Your task to perform on an android device: star an email in the gmail app Image 0: 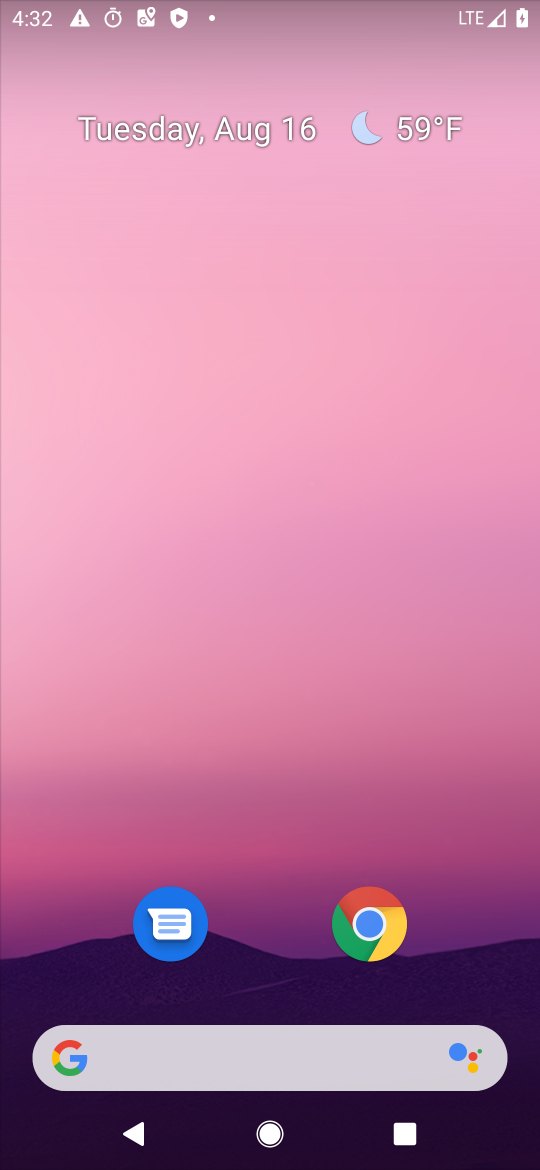
Step 0: drag from (252, 979) to (273, 181)
Your task to perform on an android device: star an email in the gmail app Image 1: 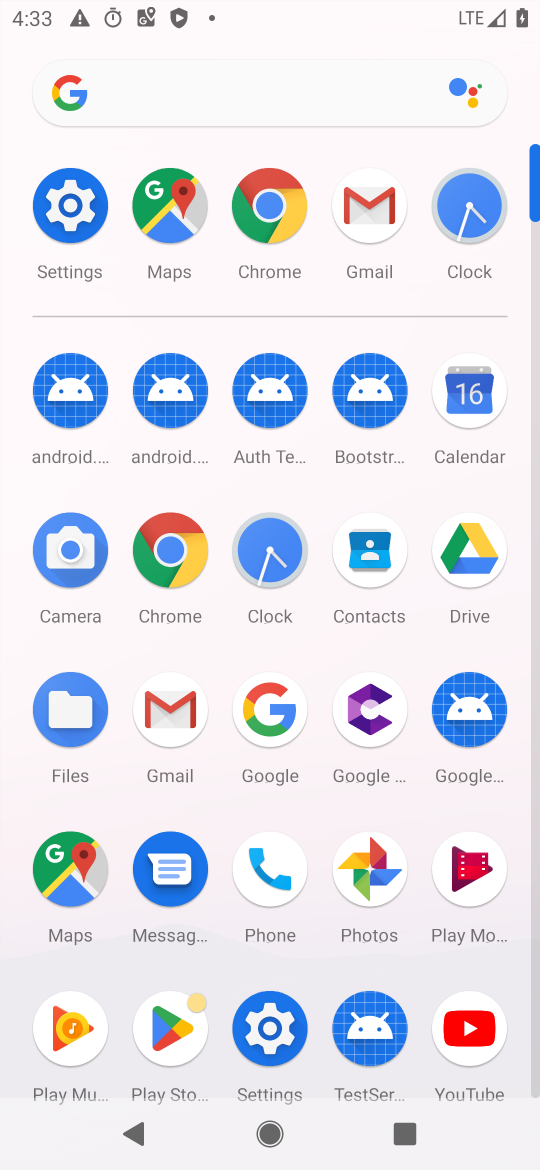
Step 1: click (377, 229)
Your task to perform on an android device: star an email in the gmail app Image 2: 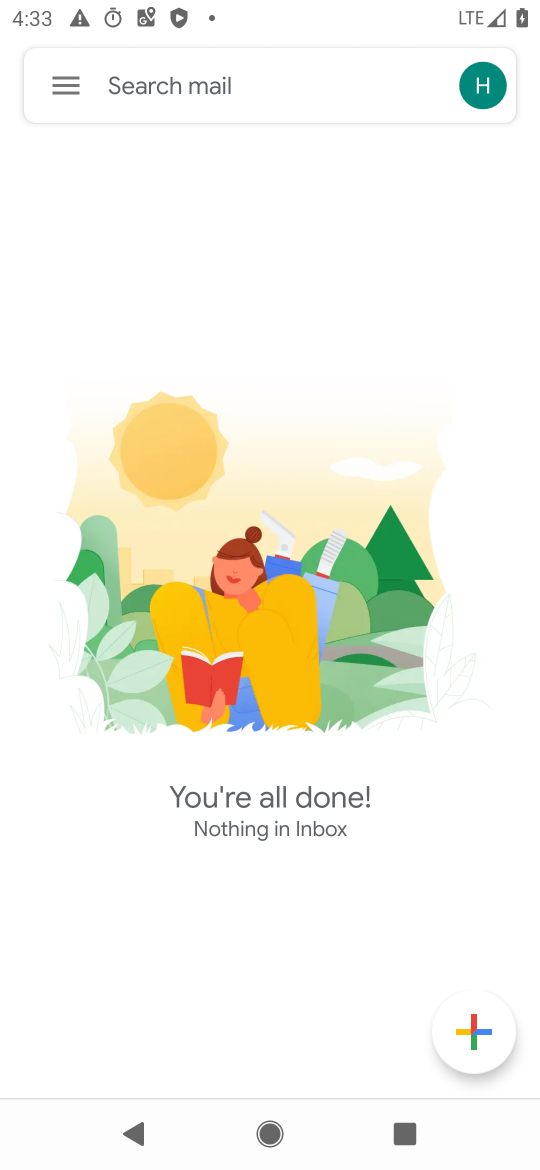
Step 2: click (72, 73)
Your task to perform on an android device: star an email in the gmail app Image 3: 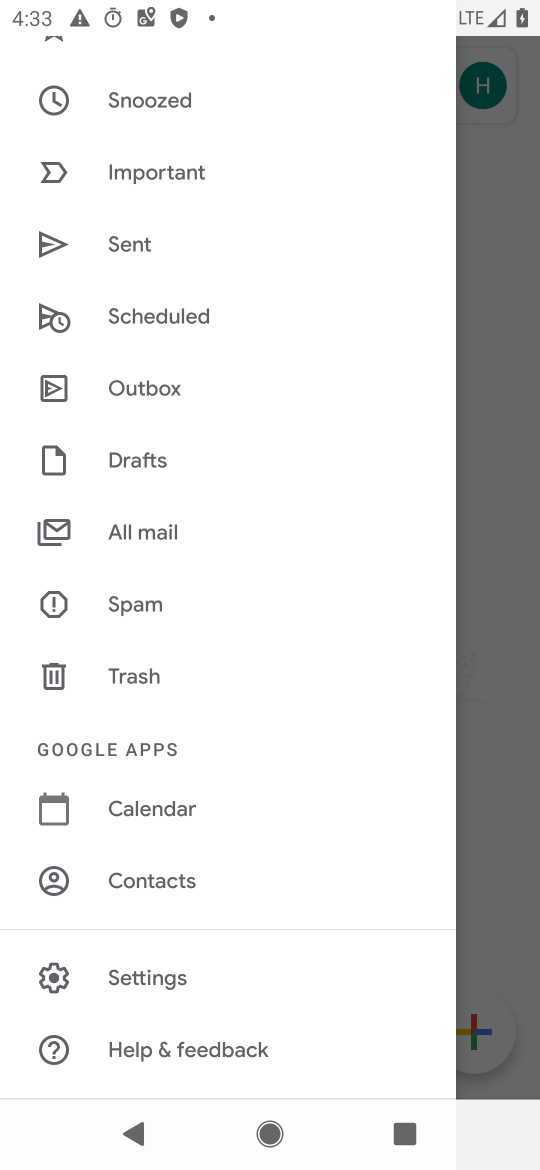
Step 3: click (175, 554)
Your task to perform on an android device: star an email in the gmail app Image 4: 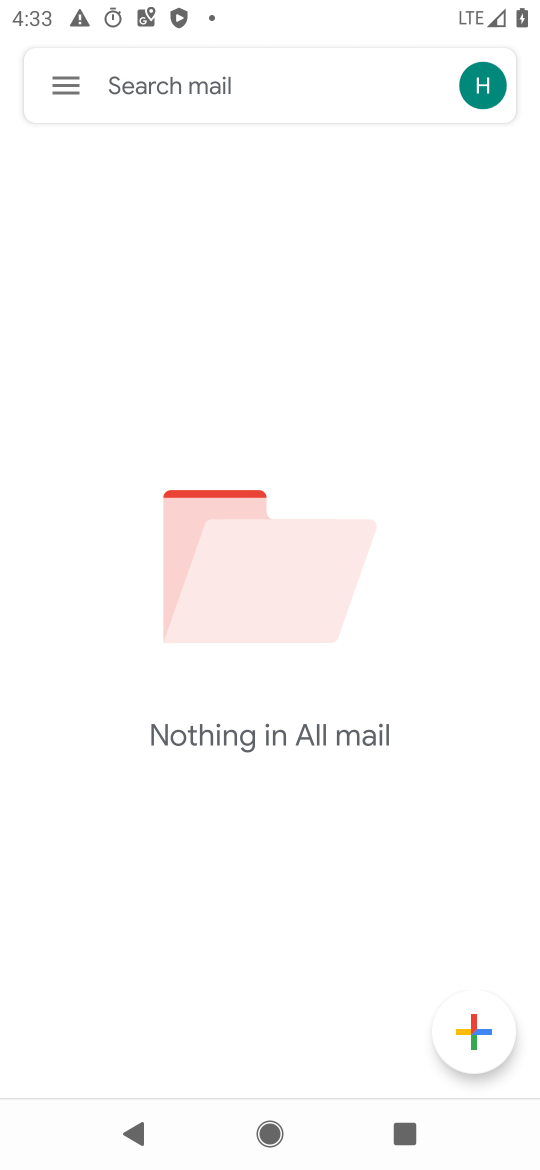
Step 4: task complete